Your task to perform on an android device: open a bookmark in the chrome app Image 0: 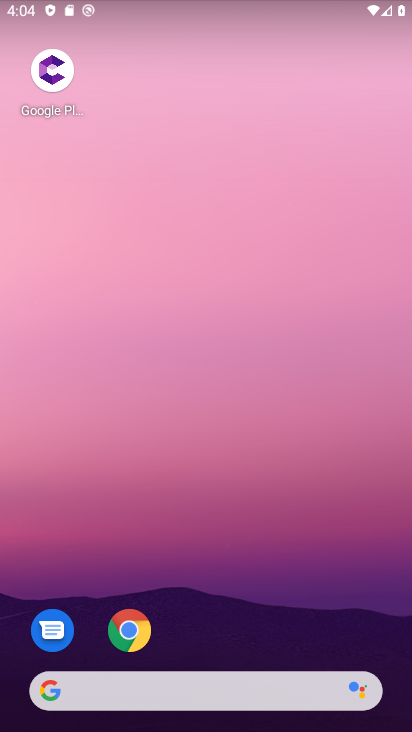
Step 0: drag from (204, 672) to (214, 267)
Your task to perform on an android device: open a bookmark in the chrome app Image 1: 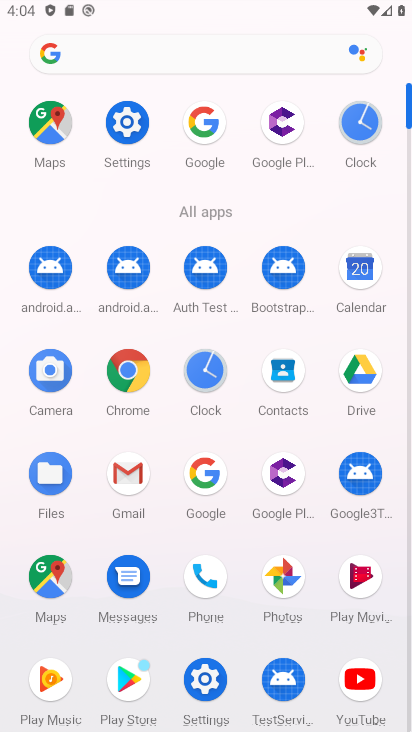
Step 1: click (124, 370)
Your task to perform on an android device: open a bookmark in the chrome app Image 2: 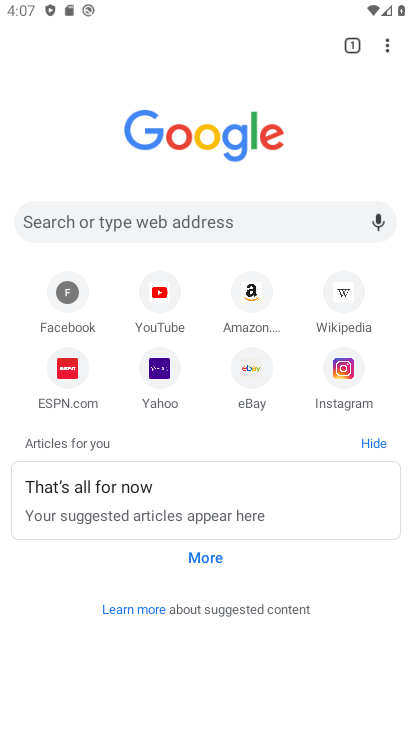
Step 2: click (389, 50)
Your task to perform on an android device: open a bookmark in the chrome app Image 3: 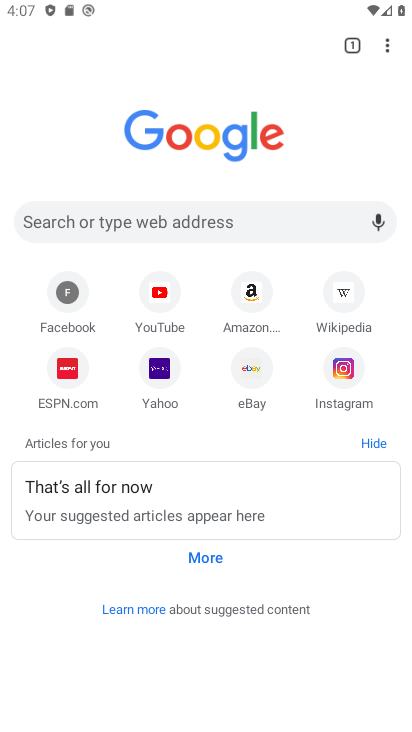
Step 3: click (389, 50)
Your task to perform on an android device: open a bookmark in the chrome app Image 4: 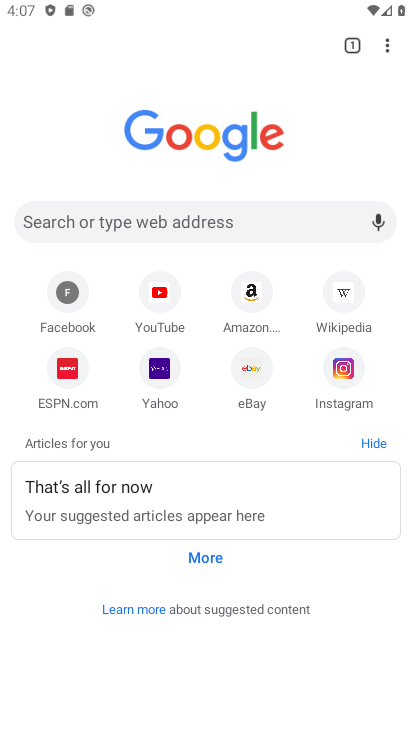
Step 4: click (389, 50)
Your task to perform on an android device: open a bookmark in the chrome app Image 5: 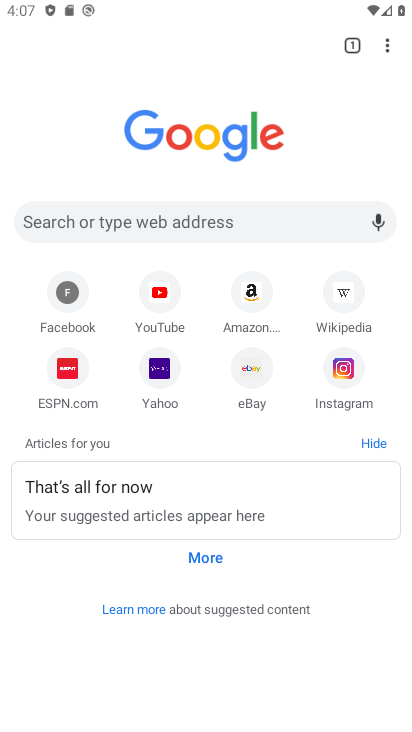
Step 5: click (389, 50)
Your task to perform on an android device: open a bookmark in the chrome app Image 6: 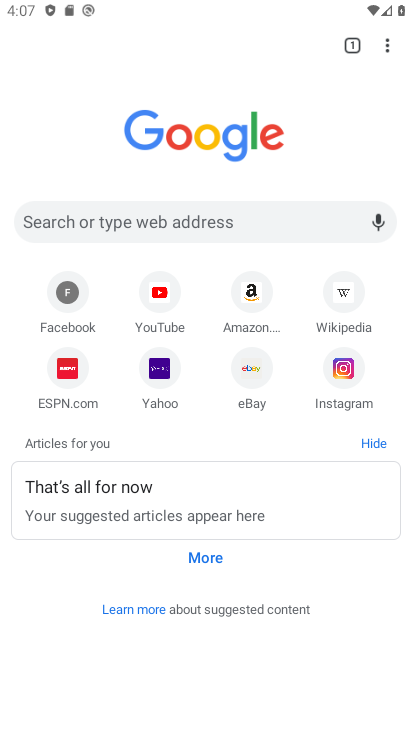
Step 6: click (389, 50)
Your task to perform on an android device: open a bookmark in the chrome app Image 7: 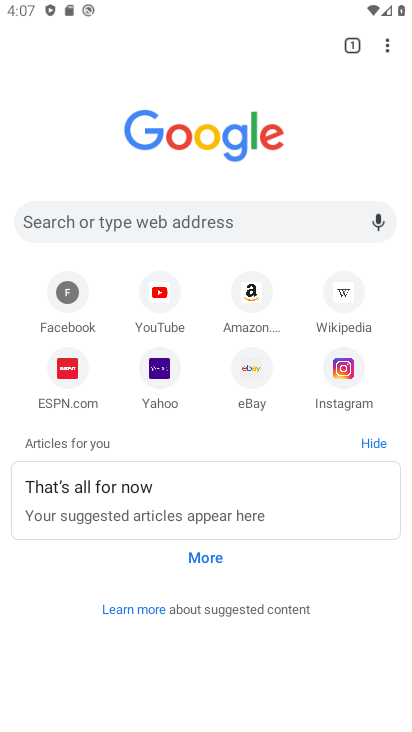
Step 7: click (389, 50)
Your task to perform on an android device: open a bookmark in the chrome app Image 8: 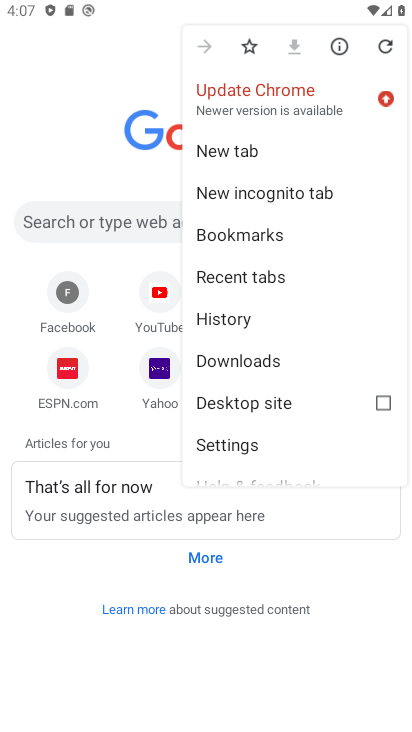
Step 8: click (246, 235)
Your task to perform on an android device: open a bookmark in the chrome app Image 9: 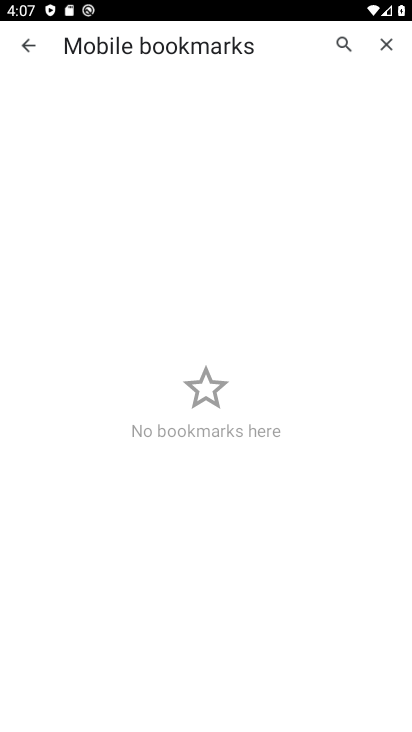
Step 9: task complete